Your task to perform on an android device: Open Wikipedia Image 0: 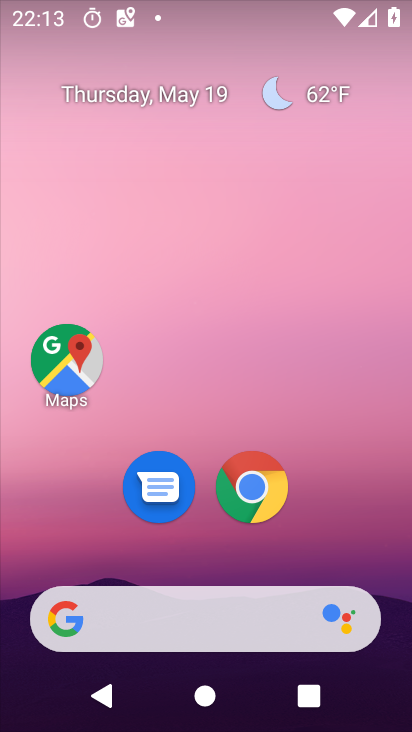
Step 0: click (261, 495)
Your task to perform on an android device: Open Wikipedia Image 1: 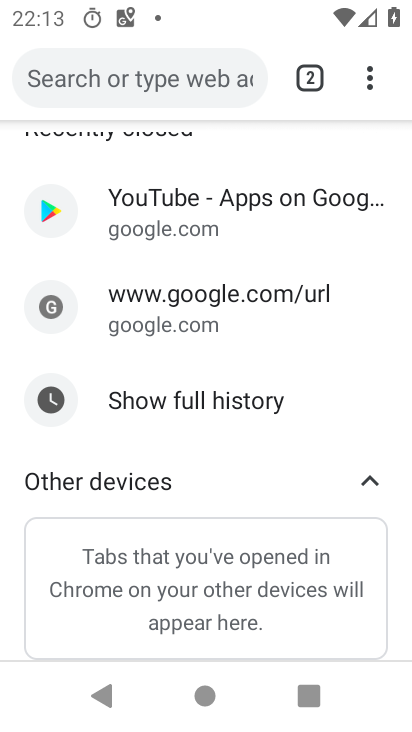
Step 1: click (310, 80)
Your task to perform on an android device: Open Wikipedia Image 2: 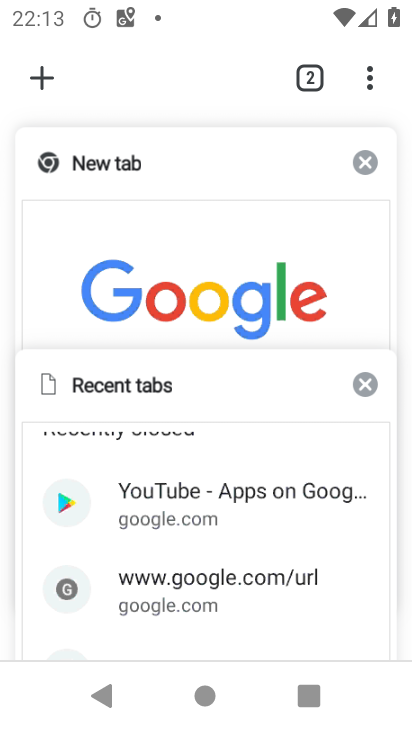
Step 2: click (66, 161)
Your task to perform on an android device: Open Wikipedia Image 3: 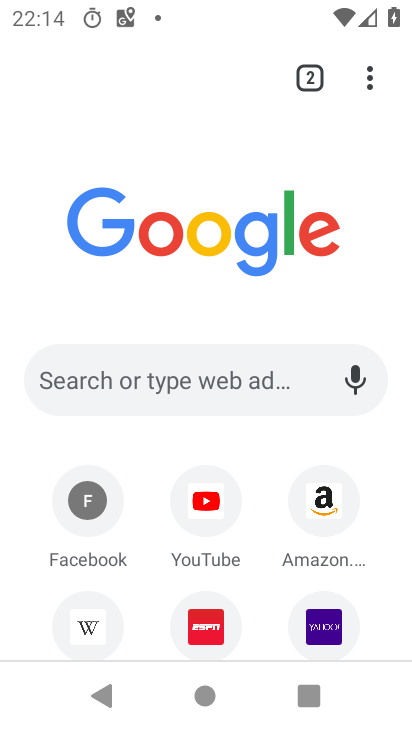
Step 3: click (92, 620)
Your task to perform on an android device: Open Wikipedia Image 4: 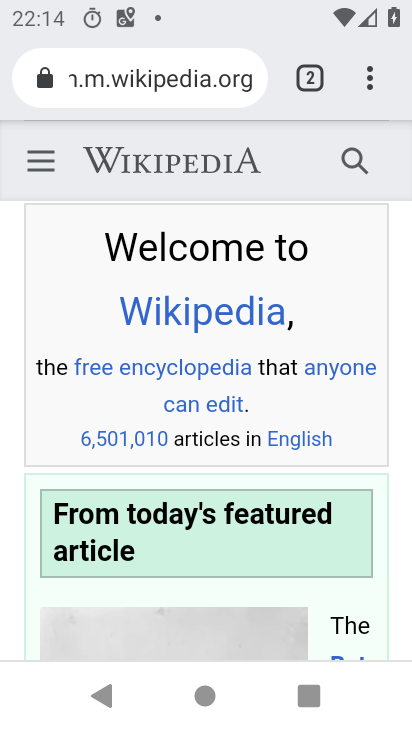
Step 4: task complete